Your task to perform on an android device: Open Google Maps Image 0: 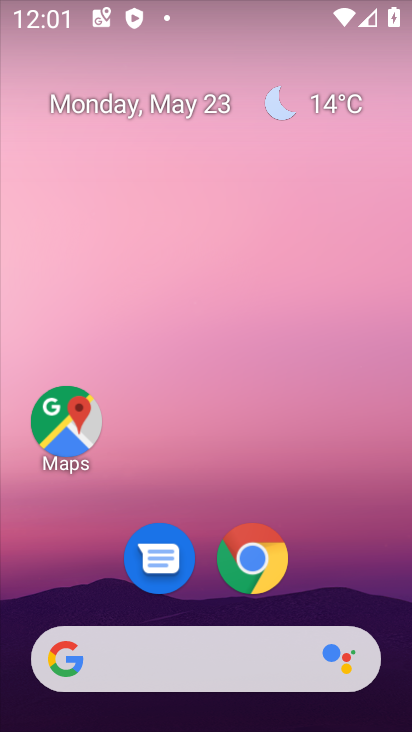
Step 0: click (64, 428)
Your task to perform on an android device: Open Google Maps Image 1: 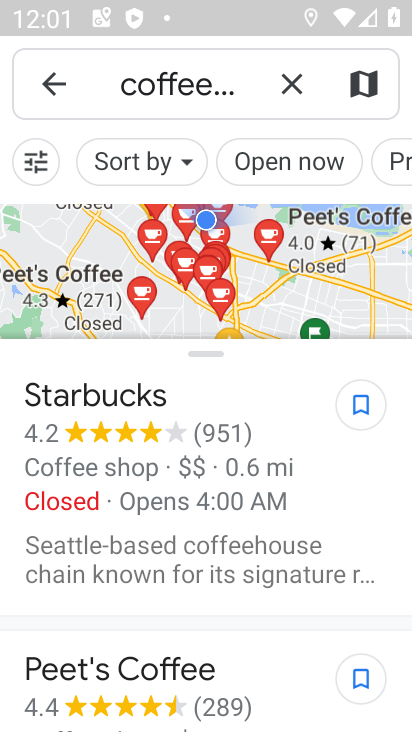
Step 1: click (301, 91)
Your task to perform on an android device: Open Google Maps Image 2: 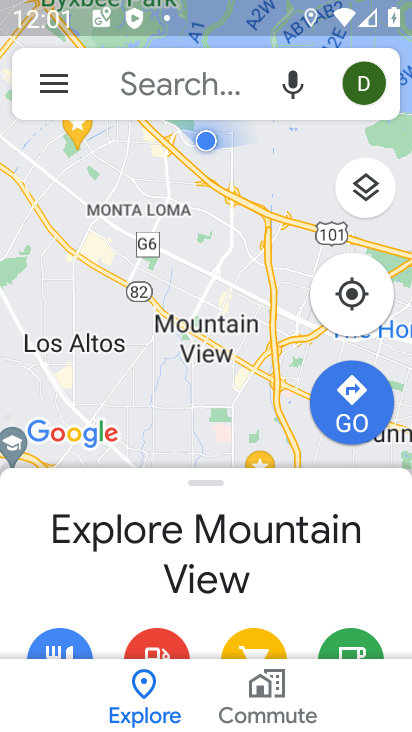
Step 2: task complete